Your task to perform on an android device: Open calendar and show me the first week of next month Image 0: 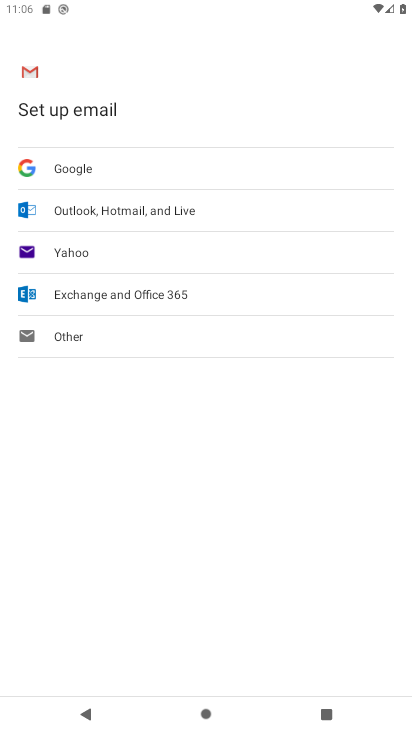
Step 0: press home button
Your task to perform on an android device: Open calendar and show me the first week of next month Image 1: 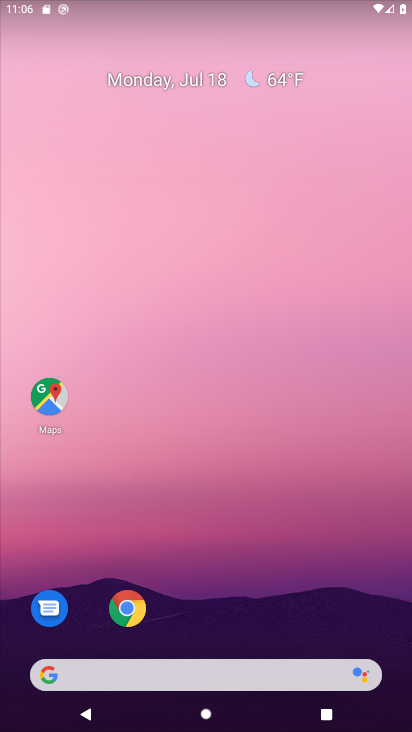
Step 1: drag from (75, 495) to (304, 25)
Your task to perform on an android device: Open calendar and show me the first week of next month Image 2: 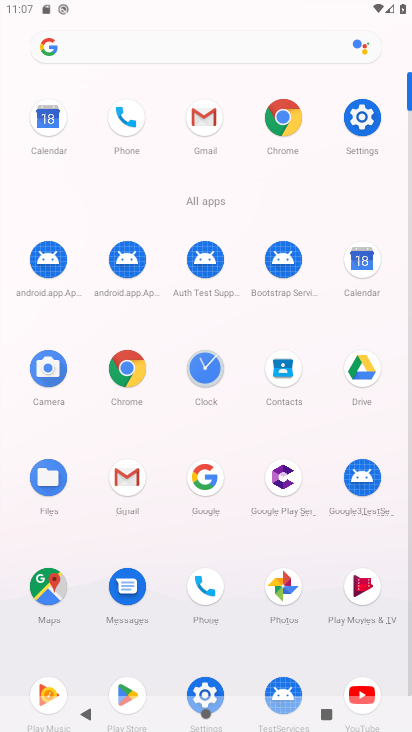
Step 2: click (365, 282)
Your task to perform on an android device: Open calendar and show me the first week of next month Image 3: 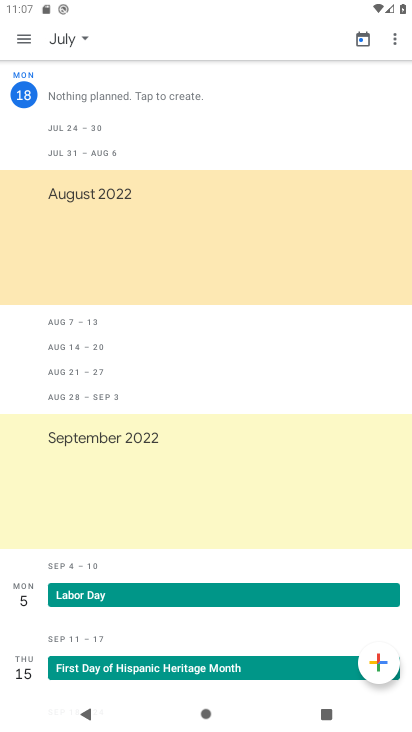
Step 3: click (64, 38)
Your task to perform on an android device: Open calendar and show me the first week of next month Image 4: 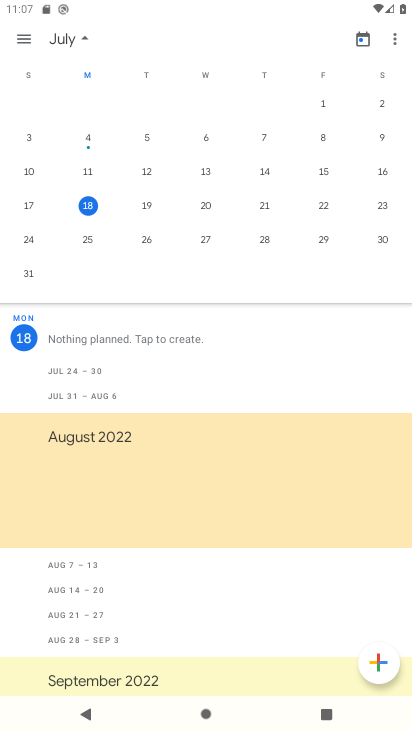
Step 4: drag from (313, 151) to (14, 200)
Your task to perform on an android device: Open calendar and show me the first week of next month Image 5: 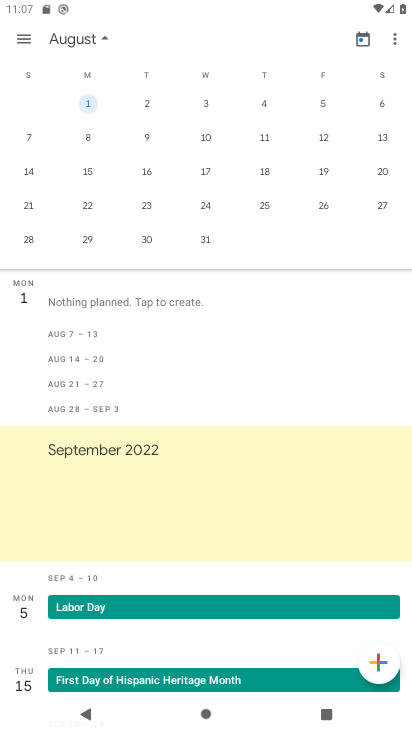
Step 5: click (327, 156)
Your task to perform on an android device: Open calendar and show me the first week of next month Image 6: 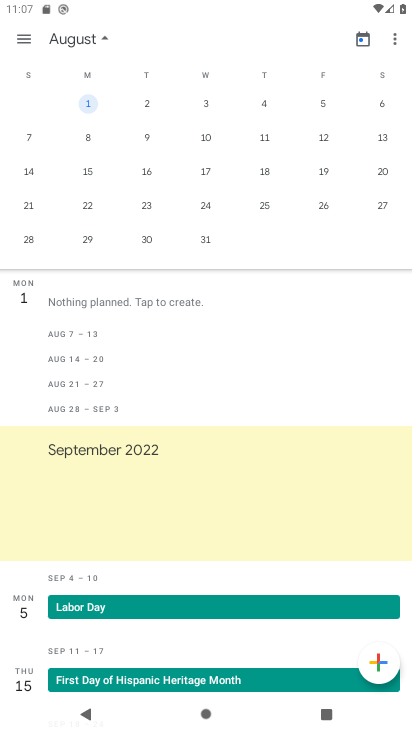
Step 6: click (67, 331)
Your task to perform on an android device: Open calendar and show me the first week of next month Image 7: 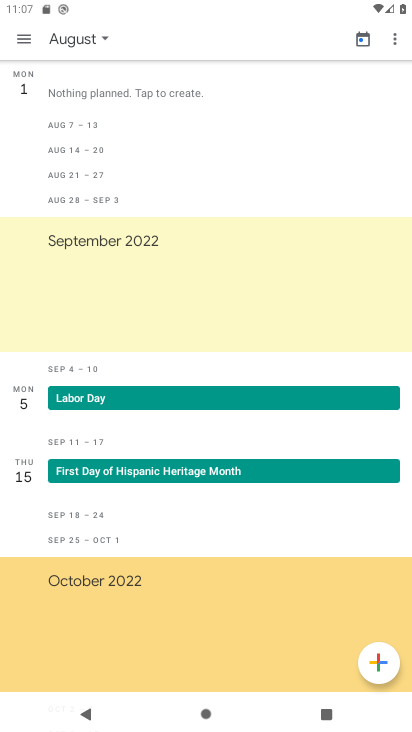
Step 7: click (87, 129)
Your task to perform on an android device: Open calendar and show me the first week of next month Image 8: 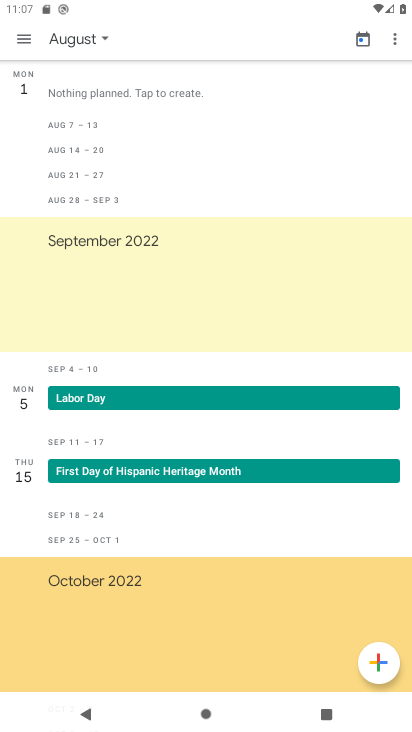
Step 8: click (33, 41)
Your task to perform on an android device: Open calendar and show me the first week of next month Image 9: 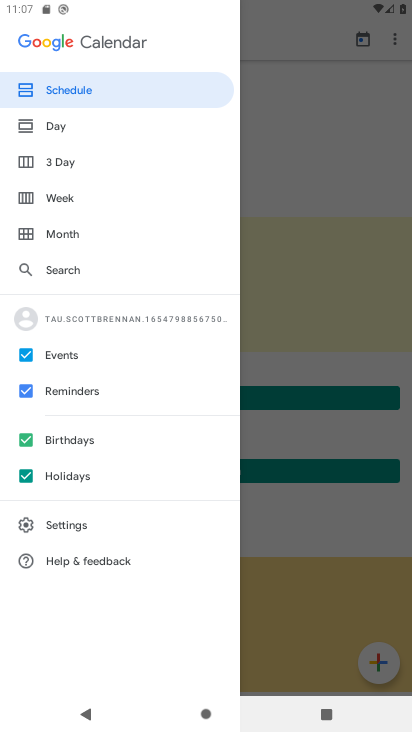
Step 9: click (65, 205)
Your task to perform on an android device: Open calendar and show me the first week of next month Image 10: 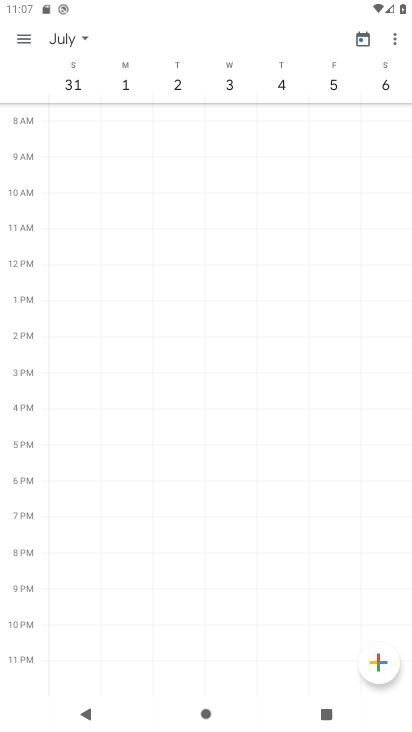
Step 10: task complete